Your task to perform on an android device: open a bookmark in the chrome app Image 0: 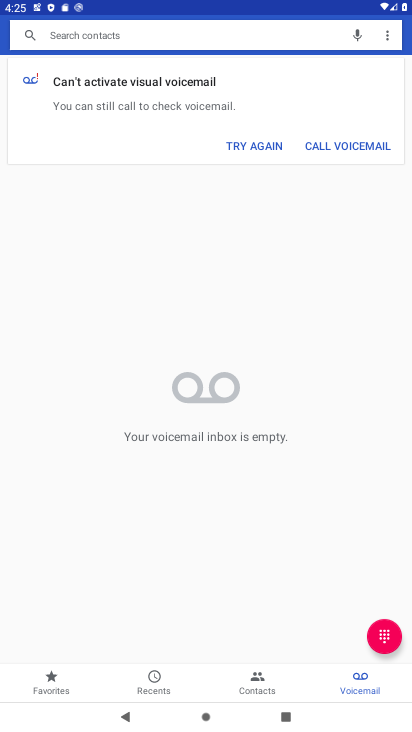
Step 0: press home button
Your task to perform on an android device: open a bookmark in the chrome app Image 1: 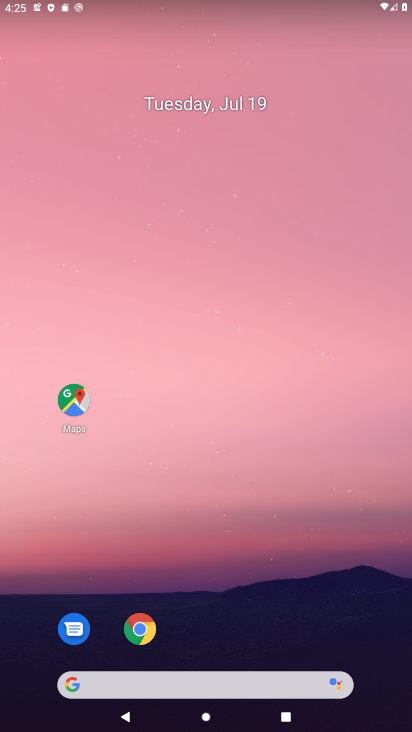
Step 1: click (136, 636)
Your task to perform on an android device: open a bookmark in the chrome app Image 2: 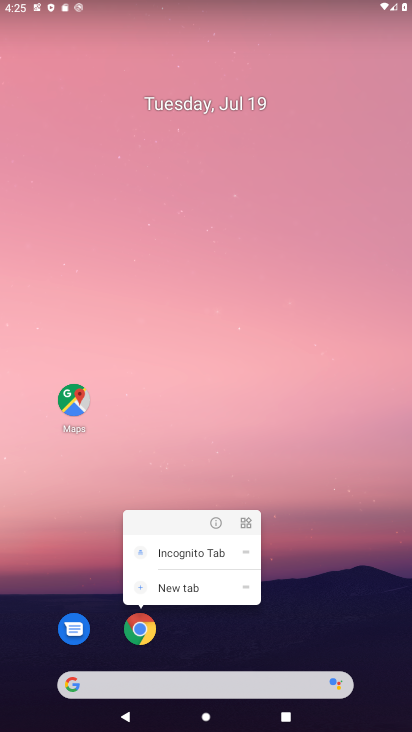
Step 2: click (146, 631)
Your task to perform on an android device: open a bookmark in the chrome app Image 3: 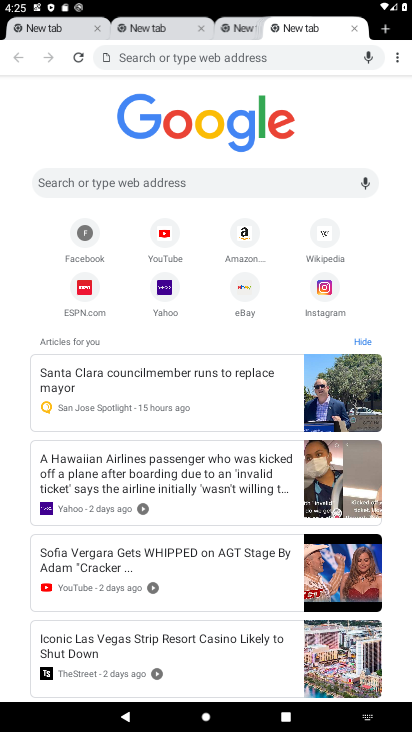
Step 3: click (396, 61)
Your task to perform on an android device: open a bookmark in the chrome app Image 4: 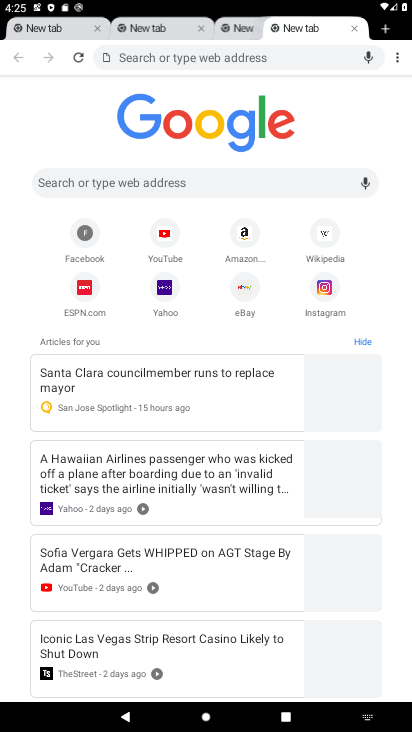
Step 4: click (393, 58)
Your task to perform on an android device: open a bookmark in the chrome app Image 5: 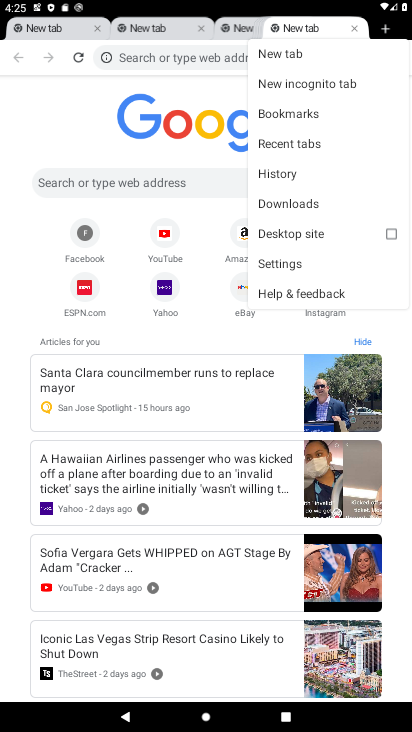
Step 5: click (300, 109)
Your task to perform on an android device: open a bookmark in the chrome app Image 6: 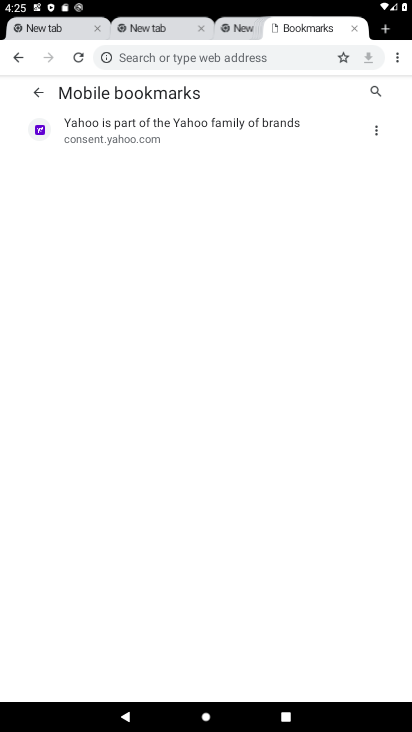
Step 6: task complete